Your task to perform on an android device: What's the weather going to be tomorrow? Image 0: 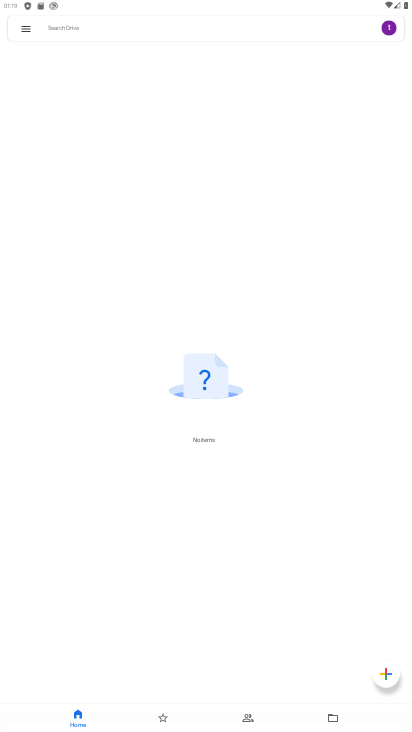
Step 0: press home button
Your task to perform on an android device: What's the weather going to be tomorrow? Image 1: 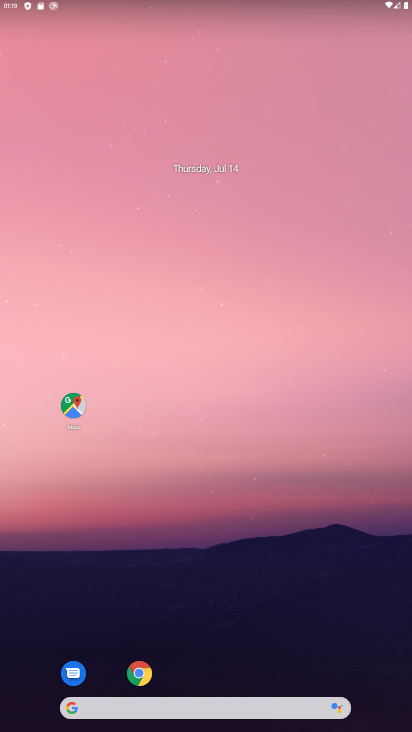
Step 1: drag from (287, 645) to (291, 276)
Your task to perform on an android device: What's the weather going to be tomorrow? Image 2: 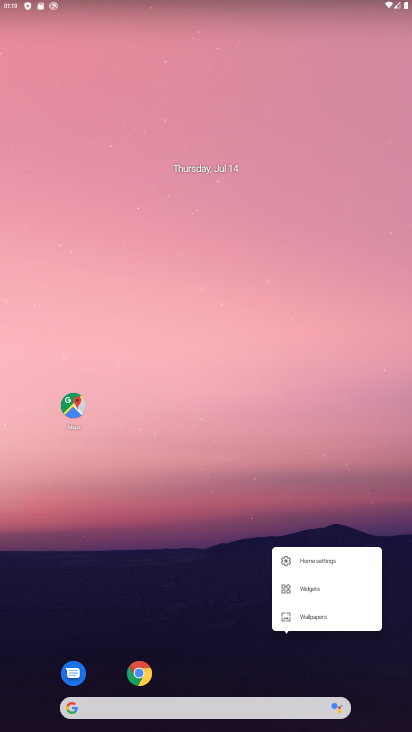
Step 2: click (225, 472)
Your task to perform on an android device: What's the weather going to be tomorrow? Image 3: 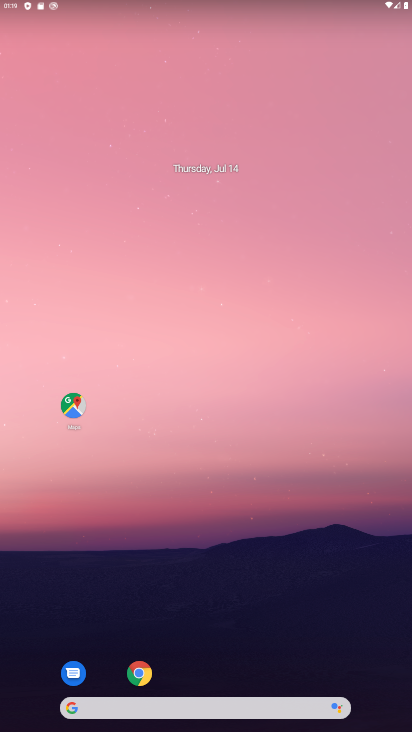
Step 3: drag from (240, 666) to (248, 202)
Your task to perform on an android device: What's the weather going to be tomorrow? Image 4: 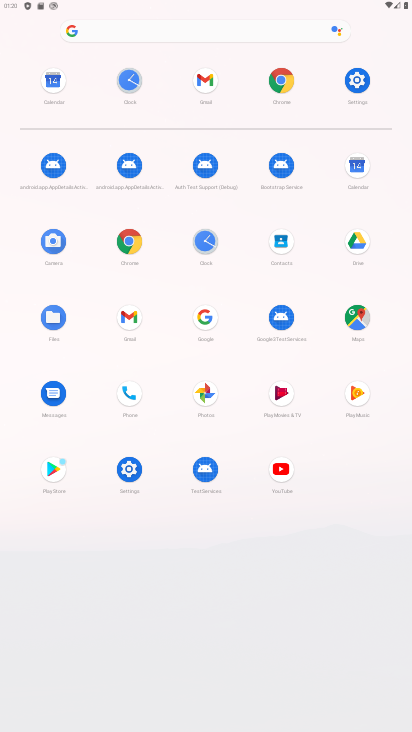
Step 4: click (221, 36)
Your task to perform on an android device: What's the weather going to be tomorrow? Image 5: 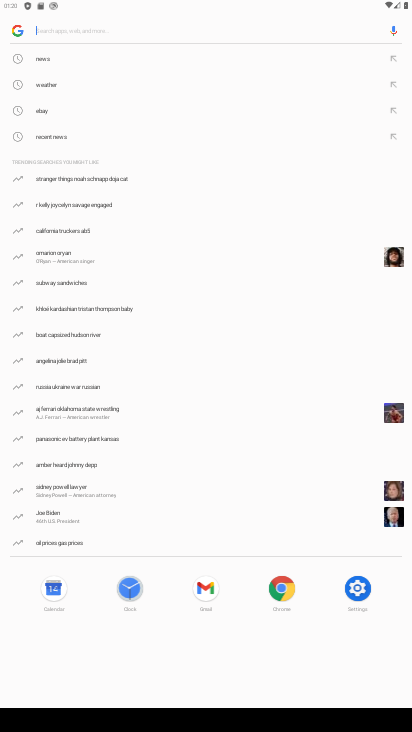
Step 5: click (120, 60)
Your task to perform on an android device: What's the weather going to be tomorrow? Image 6: 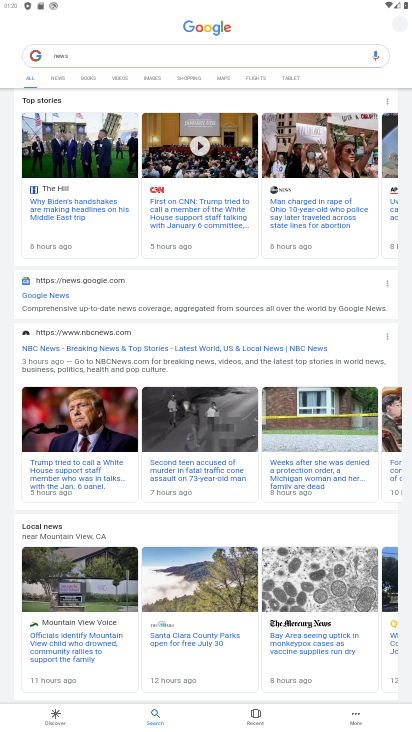
Step 6: task complete